Your task to perform on an android device: open wifi settings Image 0: 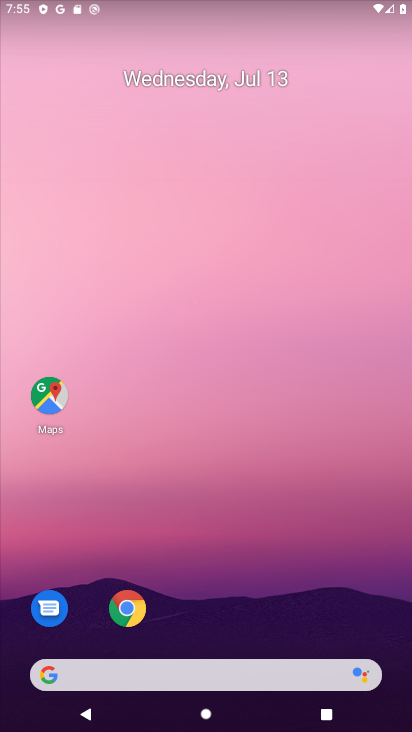
Step 0: drag from (202, 680) to (112, 306)
Your task to perform on an android device: open wifi settings Image 1: 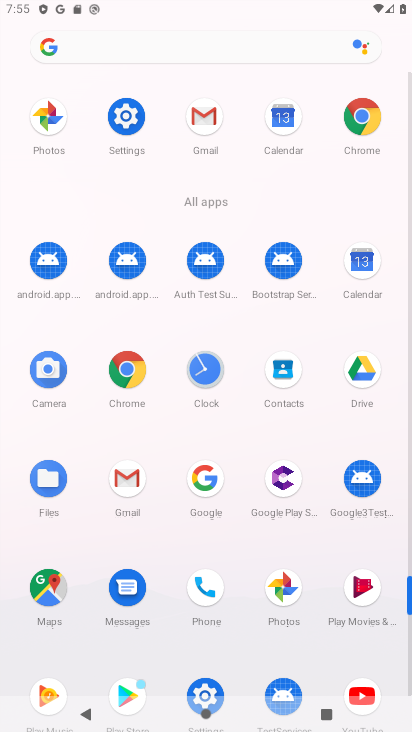
Step 1: click (214, 687)
Your task to perform on an android device: open wifi settings Image 2: 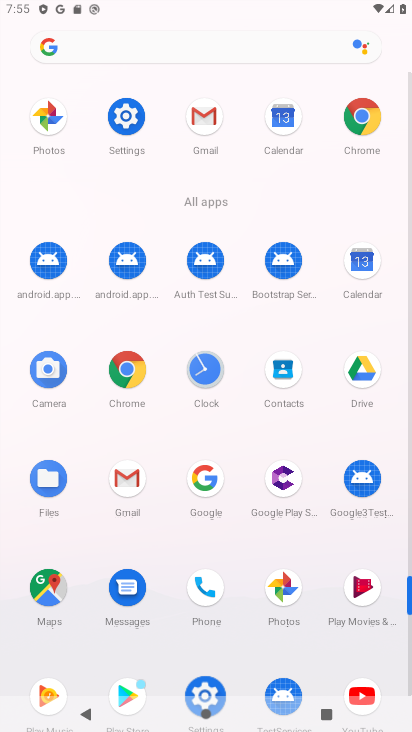
Step 2: click (213, 687)
Your task to perform on an android device: open wifi settings Image 3: 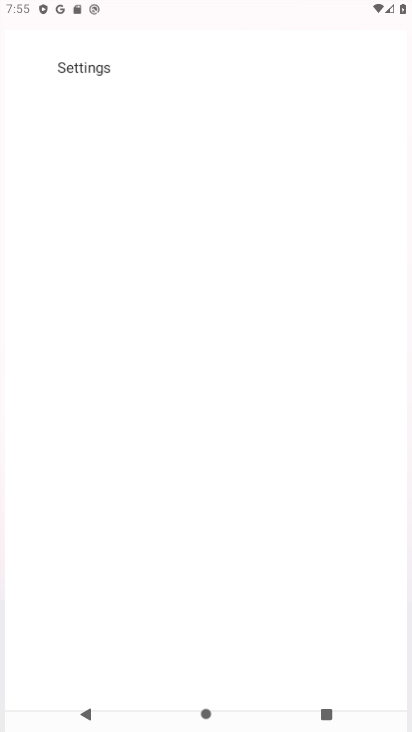
Step 3: click (213, 687)
Your task to perform on an android device: open wifi settings Image 4: 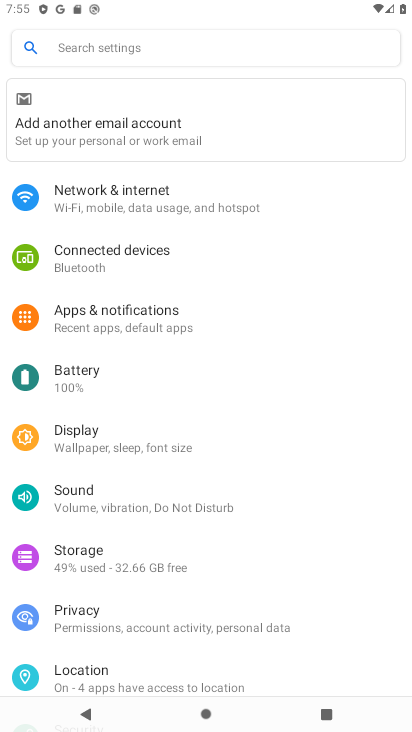
Step 4: click (118, 187)
Your task to perform on an android device: open wifi settings Image 5: 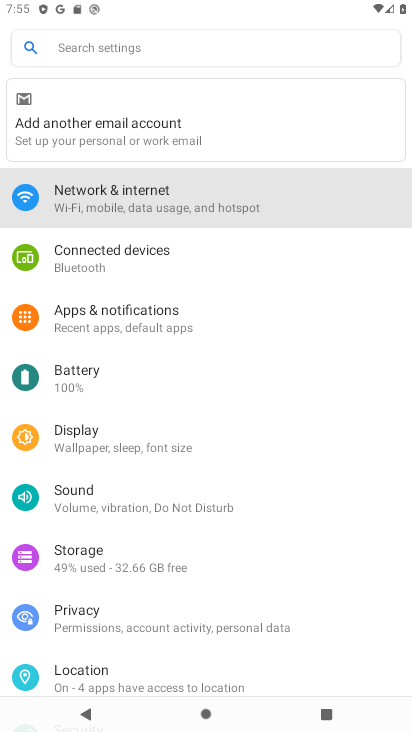
Step 5: click (118, 187)
Your task to perform on an android device: open wifi settings Image 6: 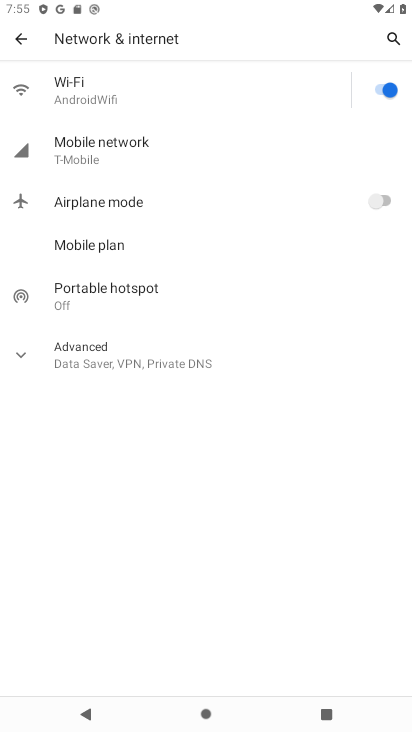
Step 6: task complete